Your task to perform on an android device: Open Yahoo.com Image 0: 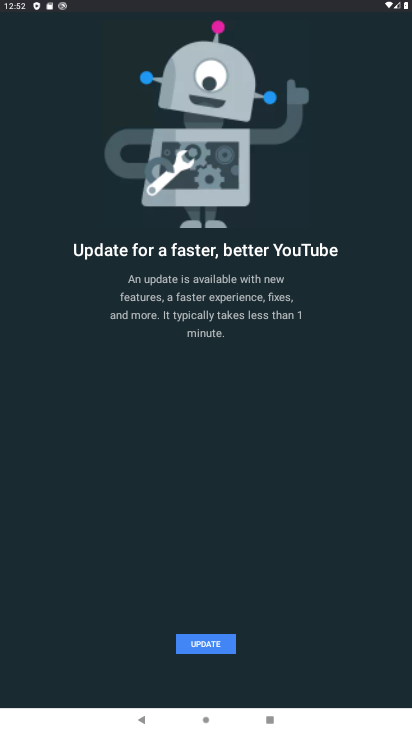
Step 0: press home button
Your task to perform on an android device: Open Yahoo.com Image 1: 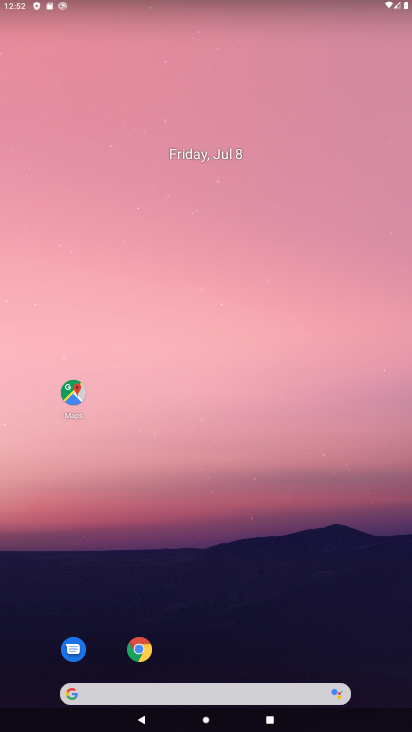
Step 1: click (128, 698)
Your task to perform on an android device: Open Yahoo.com Image 2: 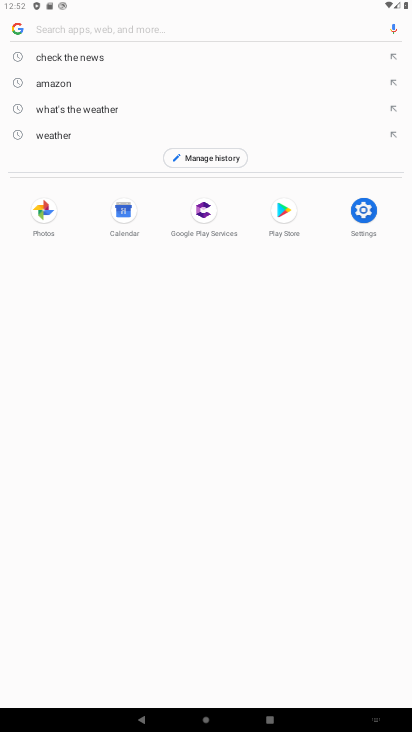
Step 2: click (87, 21)
Your task to perform on an android device: Open Yahoo.com Image 3: 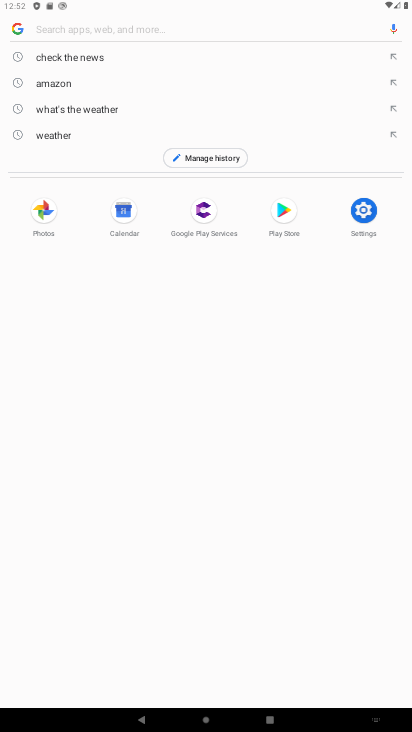
Step 3: type "Yahoo.com"
Your task to perform on an android device: Open Yahoo.com Image 4: 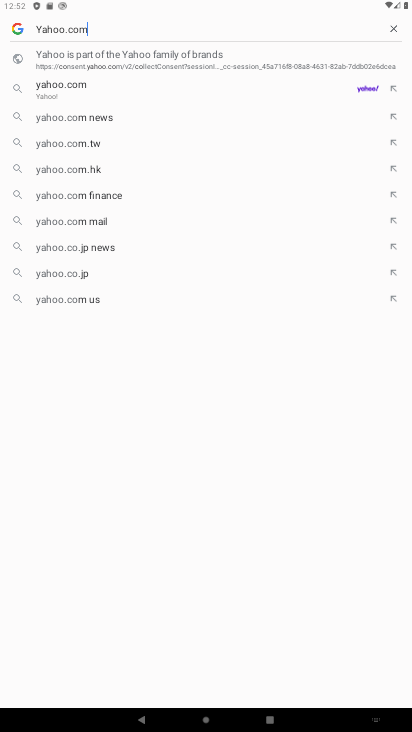
Step 4: type ""
Your task to perform on an android device: Open Yahoo.com Image 5: 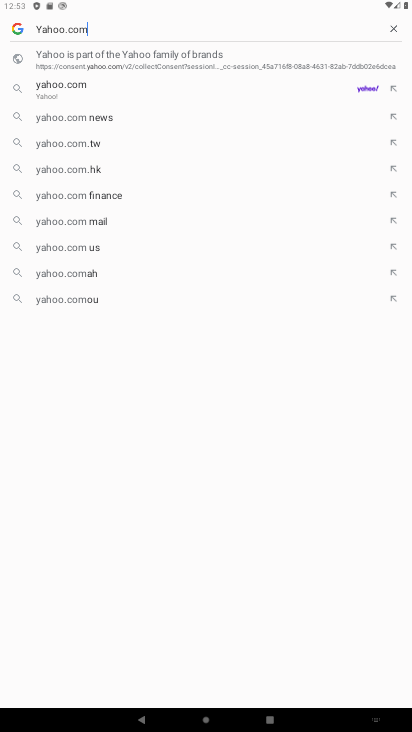
Step 5: click (66, 80)
Your task to perform on an android device: Open Yahoo.com Image 6: 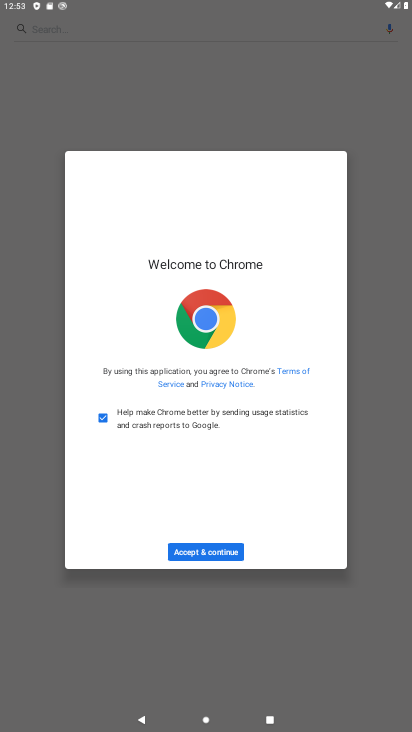
Step 6: task complete